Your task to perform on an android device: Go to network settings Image 0: 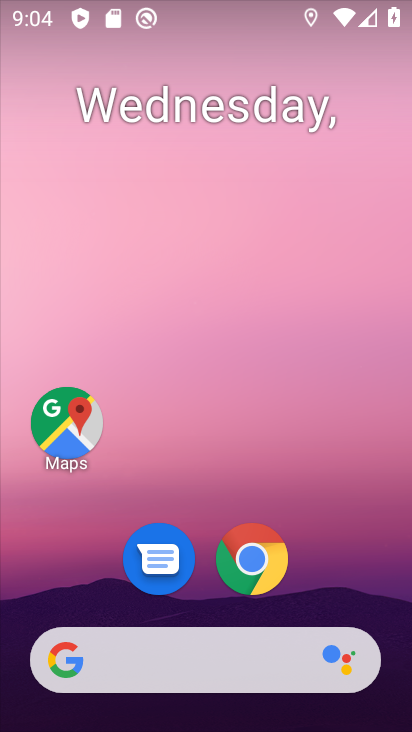
Step 0: drag from (361, 568) to (272, 39)
Your task to perform on an android device: Go to network settings Image 1: 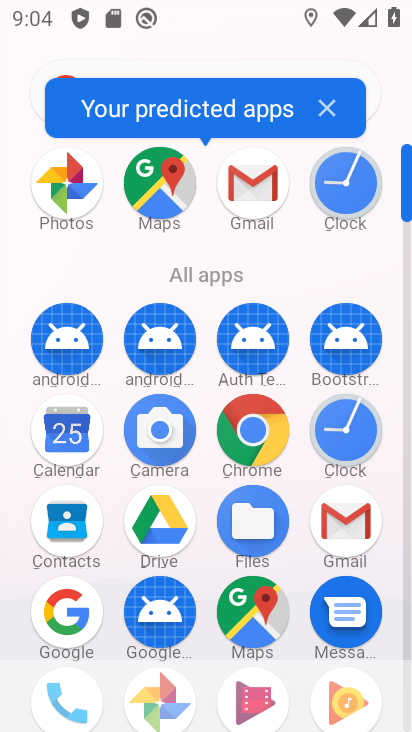
Step 1: drag from (285, 566) to (214, 238)
Your task to perform on an android device: Go to network settings Image 2: 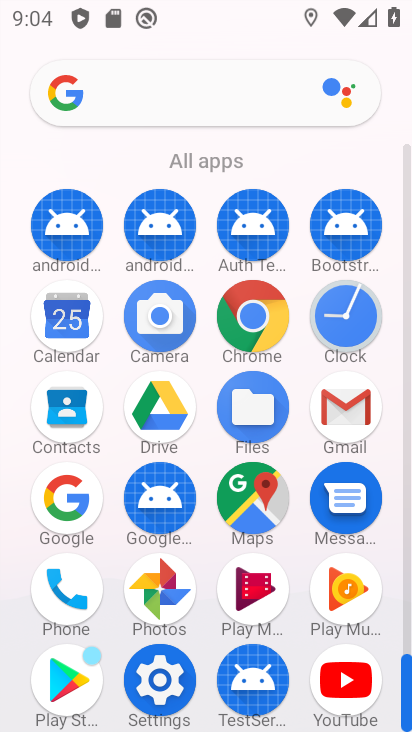
Step 2: click (172, 683)
Your task to perform on an android device: Go to network settings Image 3: 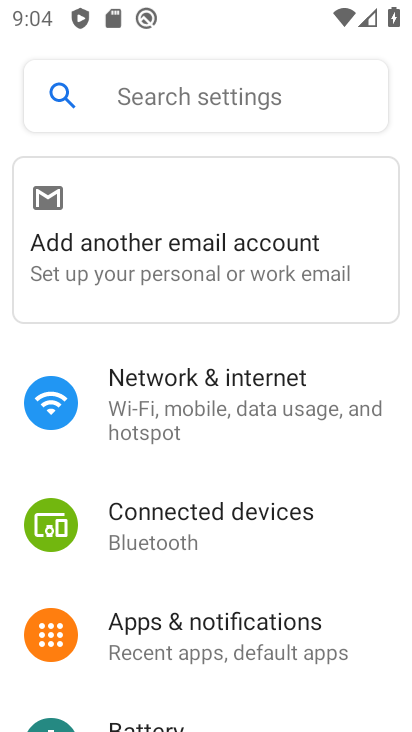
Step 3: click (224, 406)
Your task to perform on an android device: Go to network settings Image 4: 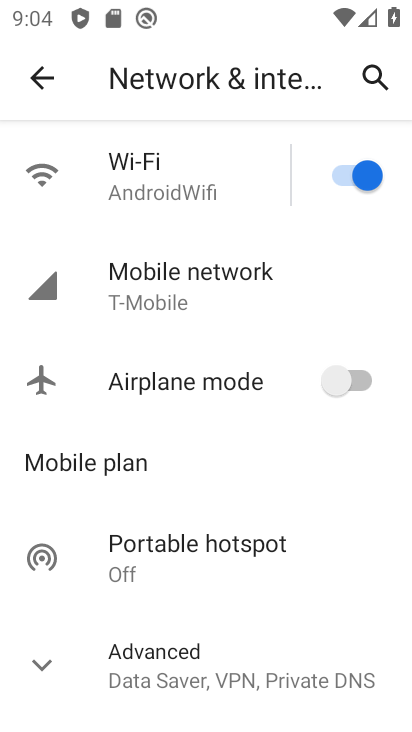
Step 4: task complete